Your task to perform on an android device: Add "energizer triple a" to the cart on newegg.com Image 0: 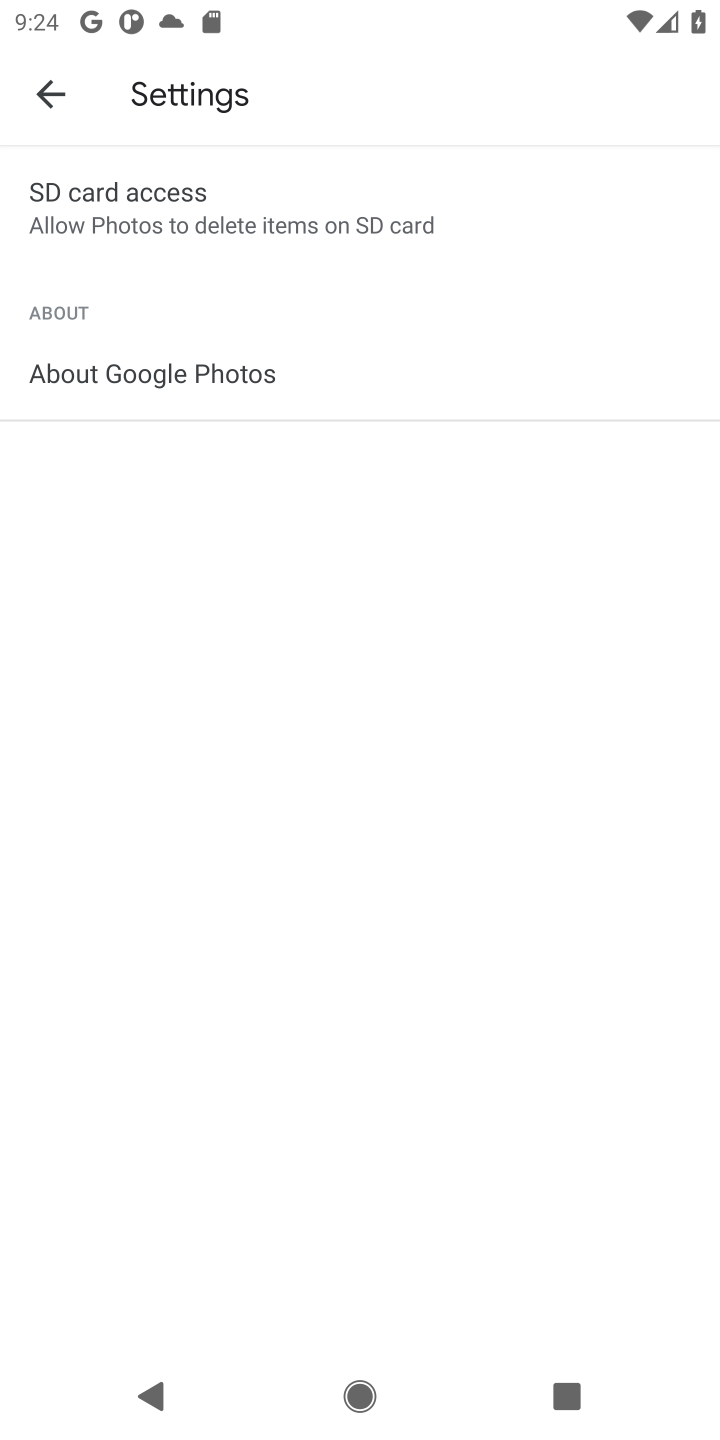
Step 0: press home button
Your task to perform on an android device: Add "energizer triple a" to the cart on newegg.com Image 1: 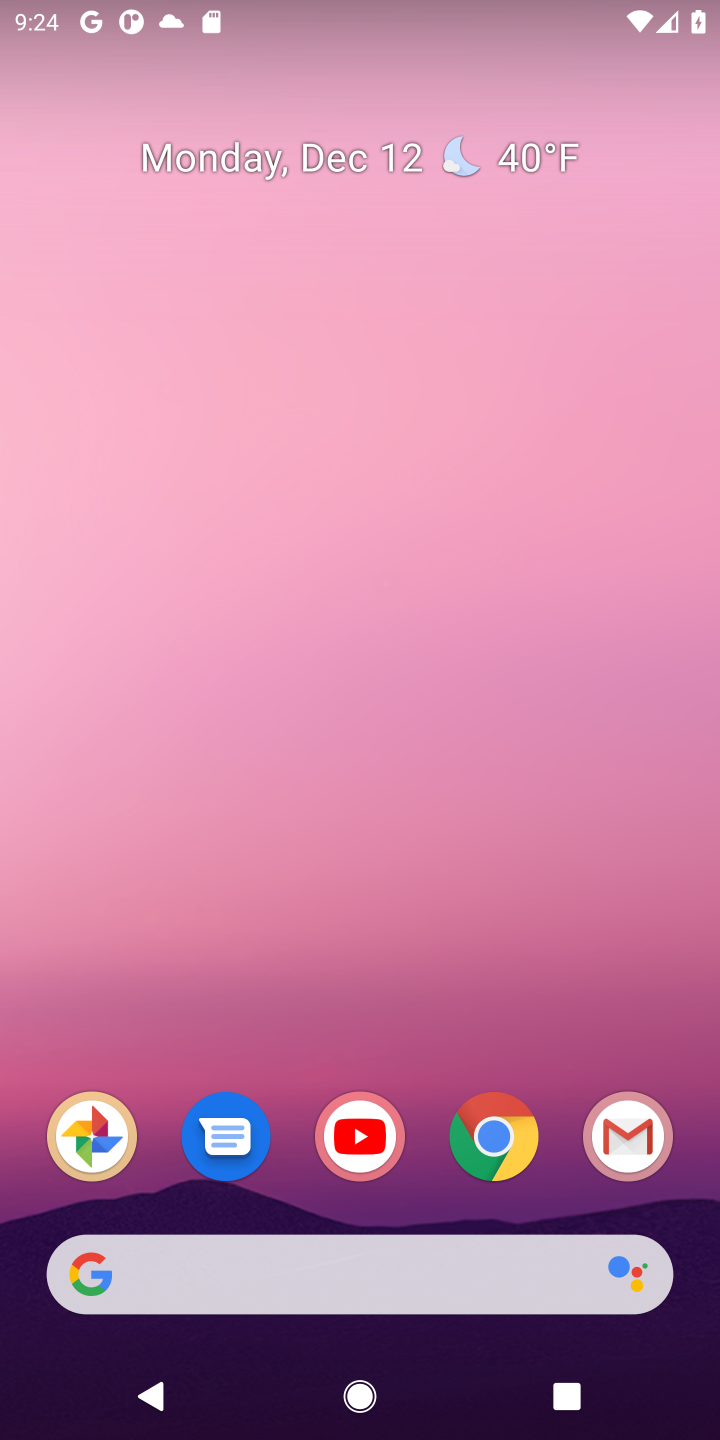
Step 1: click (495, 1150)
Your task to perform on an android device: Add "energizer triple a" to the cart on newegg.com Image 2: 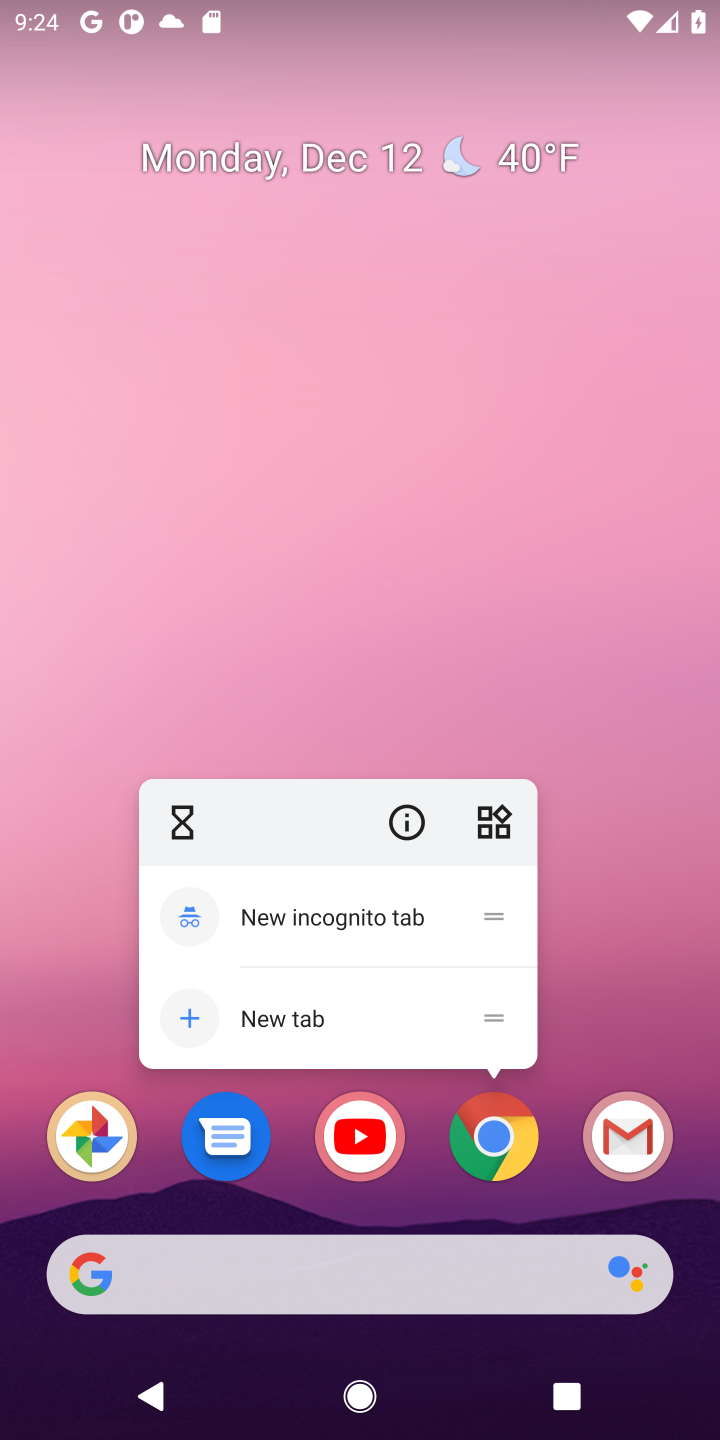
Step 2: click (495, 1150)
Your task to perform on an android device: Add "energizer triple a" to the cart on newegg.com Image 3: 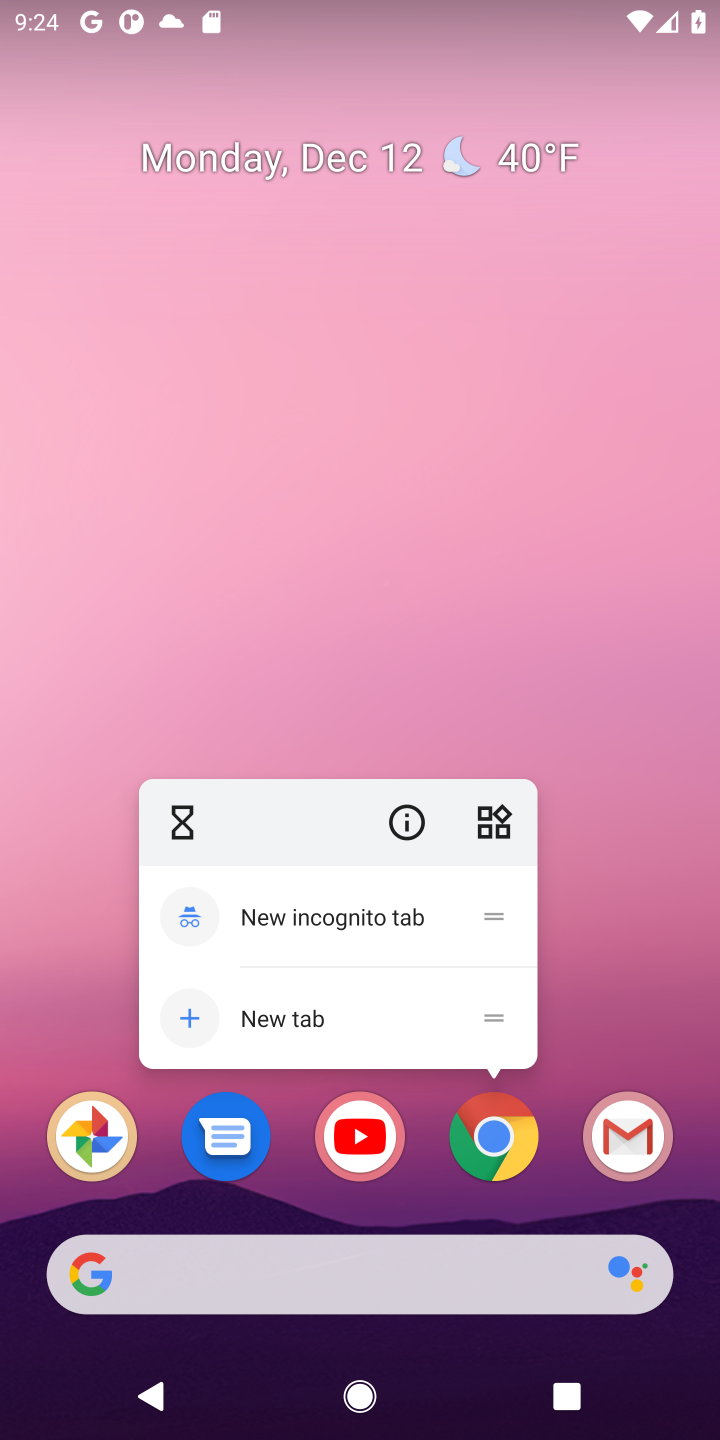
Step 3: click (497, 1148)
Your task to perform on an android device: Add "energizer triple a" to the cart on newegg.com Image 4: 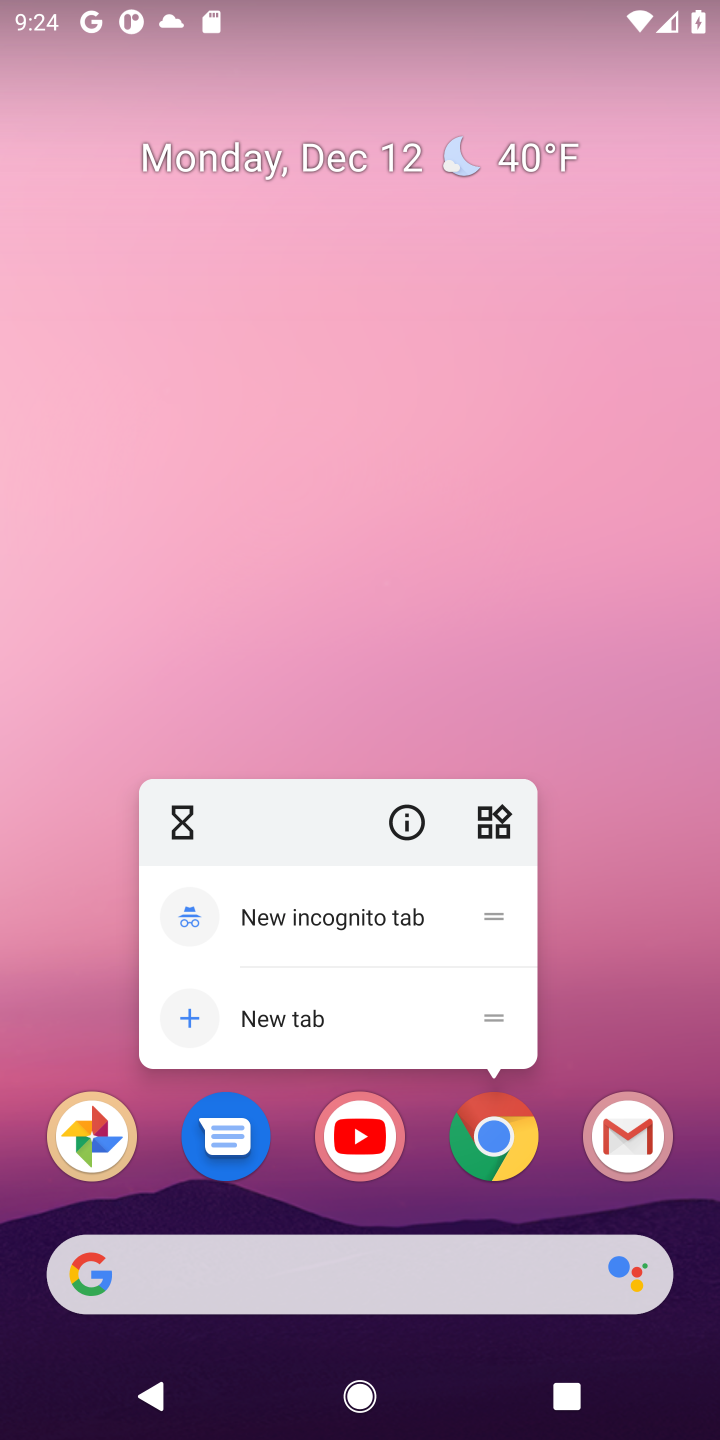
Step 4: click (502, 1143)
Your task to perform on an android device: Add "energizer triple a" to the cart on newegg.com Image 5: 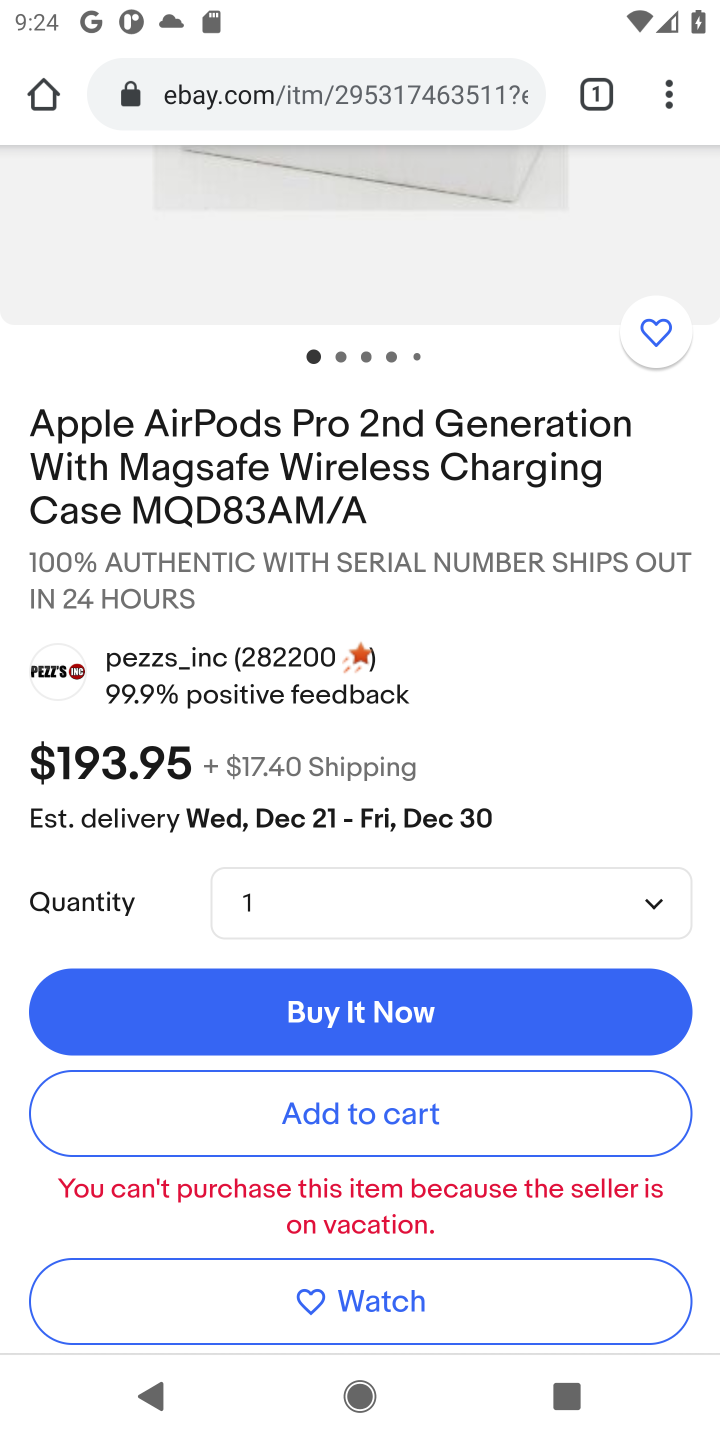
Step 5: click (255, 96)
Your task to perform on an android device: Add "energizer triple a" to the cart on newegg.com Image 6: 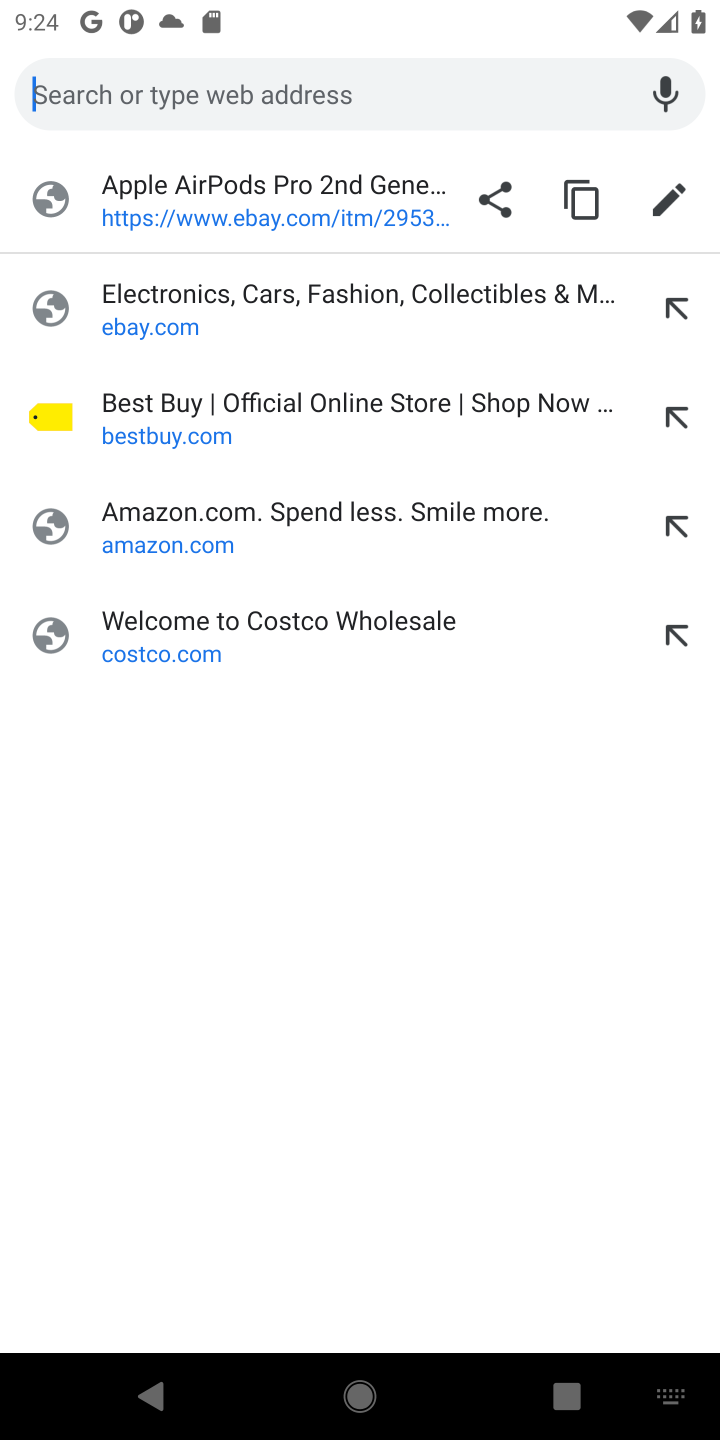
Step 6: type "newegg.com"
Your task to perform on an android device: Add "energizer triple a" to the cart on newegg.com Image 7: 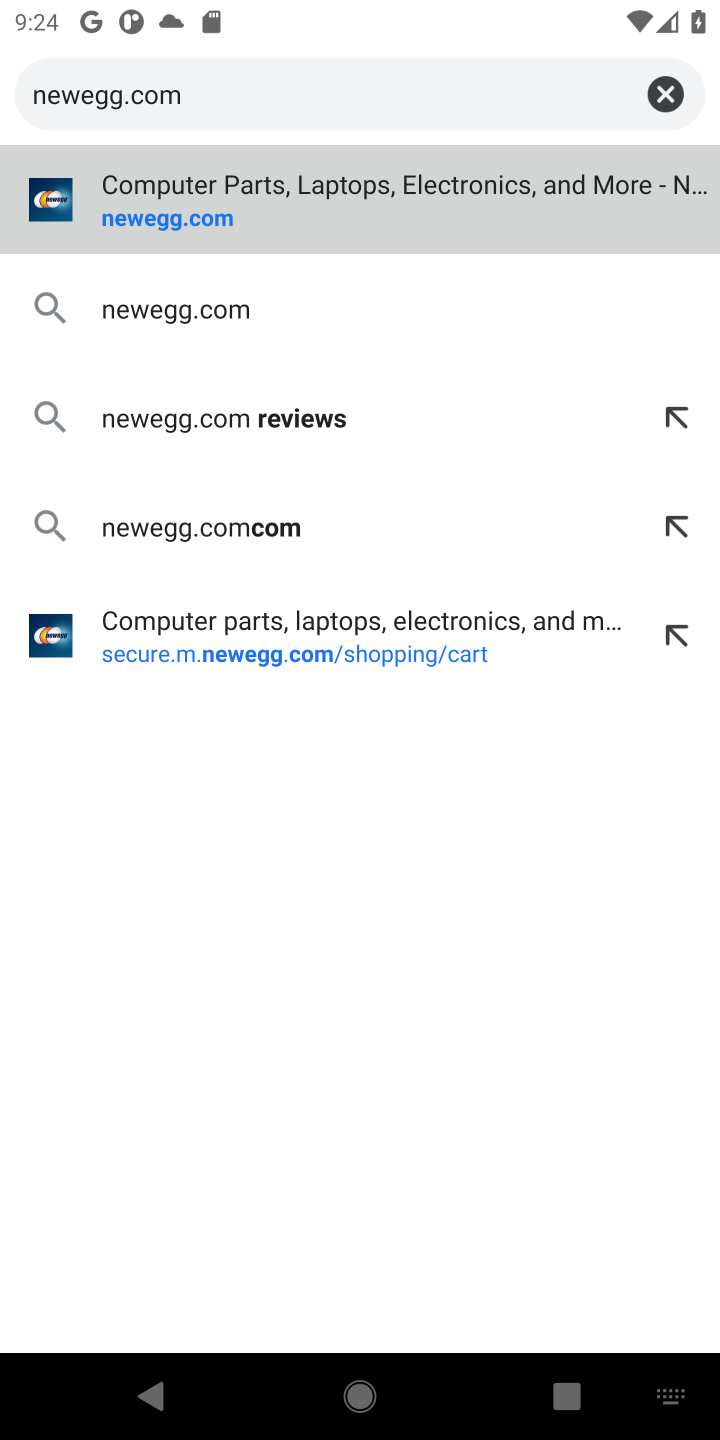
Step 7: click (146, 205)
Your task to perform on an android device: Add "energizer triple a" to the cart on newegg.com Image 8: 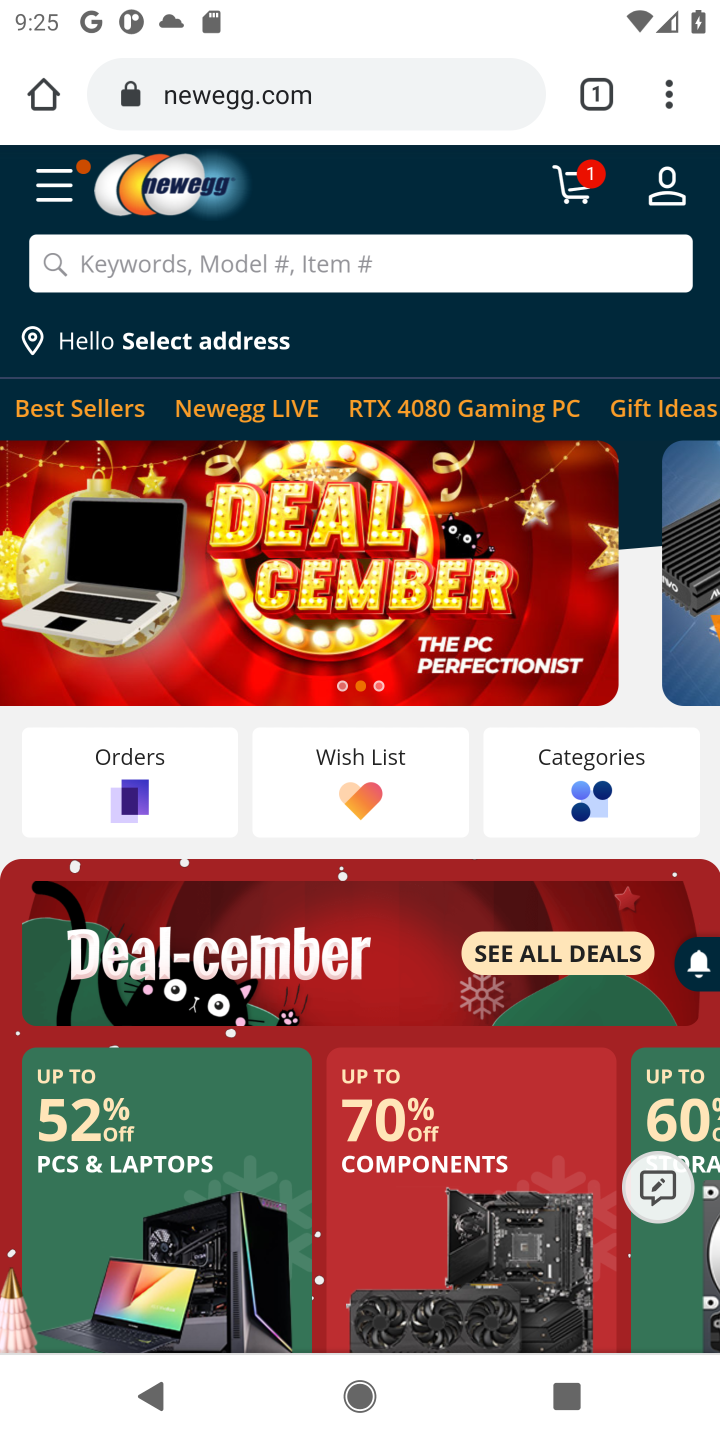
Step 8: click (181, 270)
Your task to perform on an android device: Add "energizer triple a" to the cart on newegg.com Image 9: 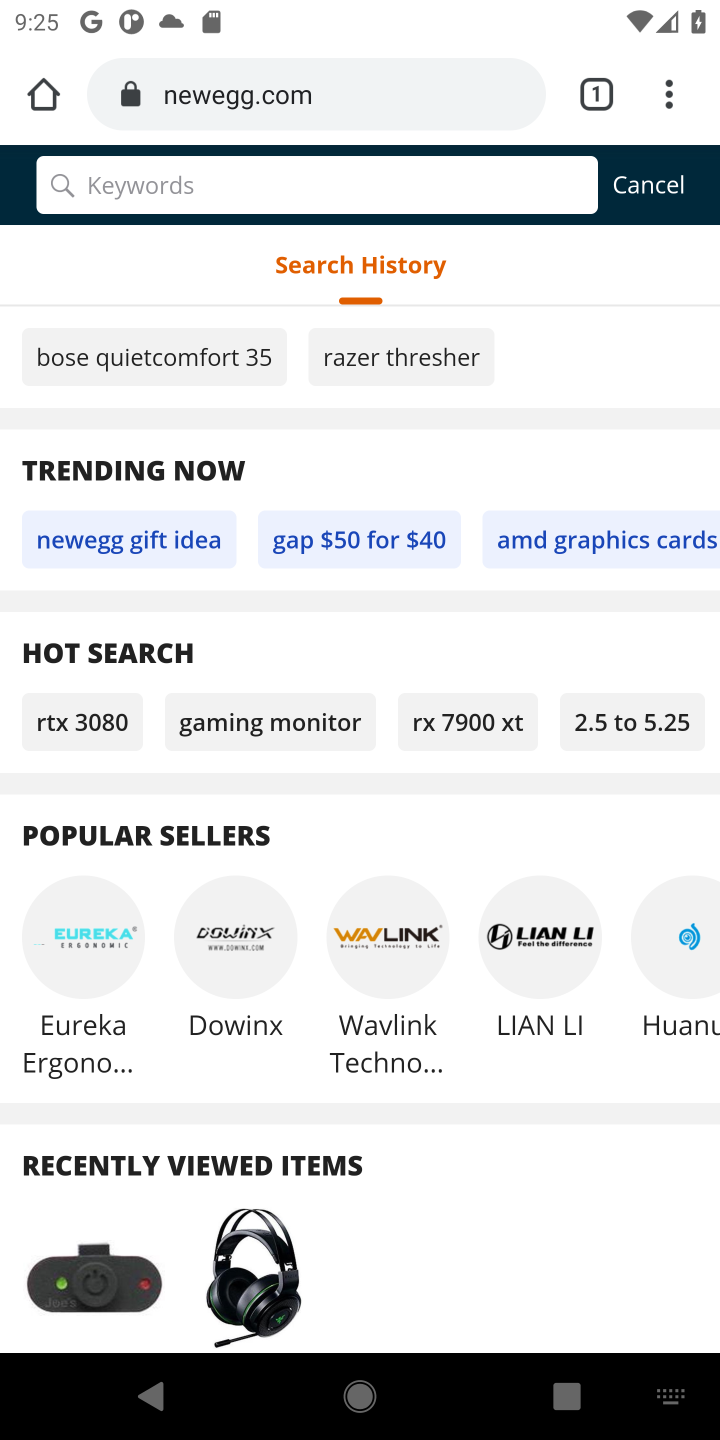
Step 9: type "energizer triple a"
Your task to perform on an android device: Add "energizer triple a" to the cart on newegg.com Image 10: 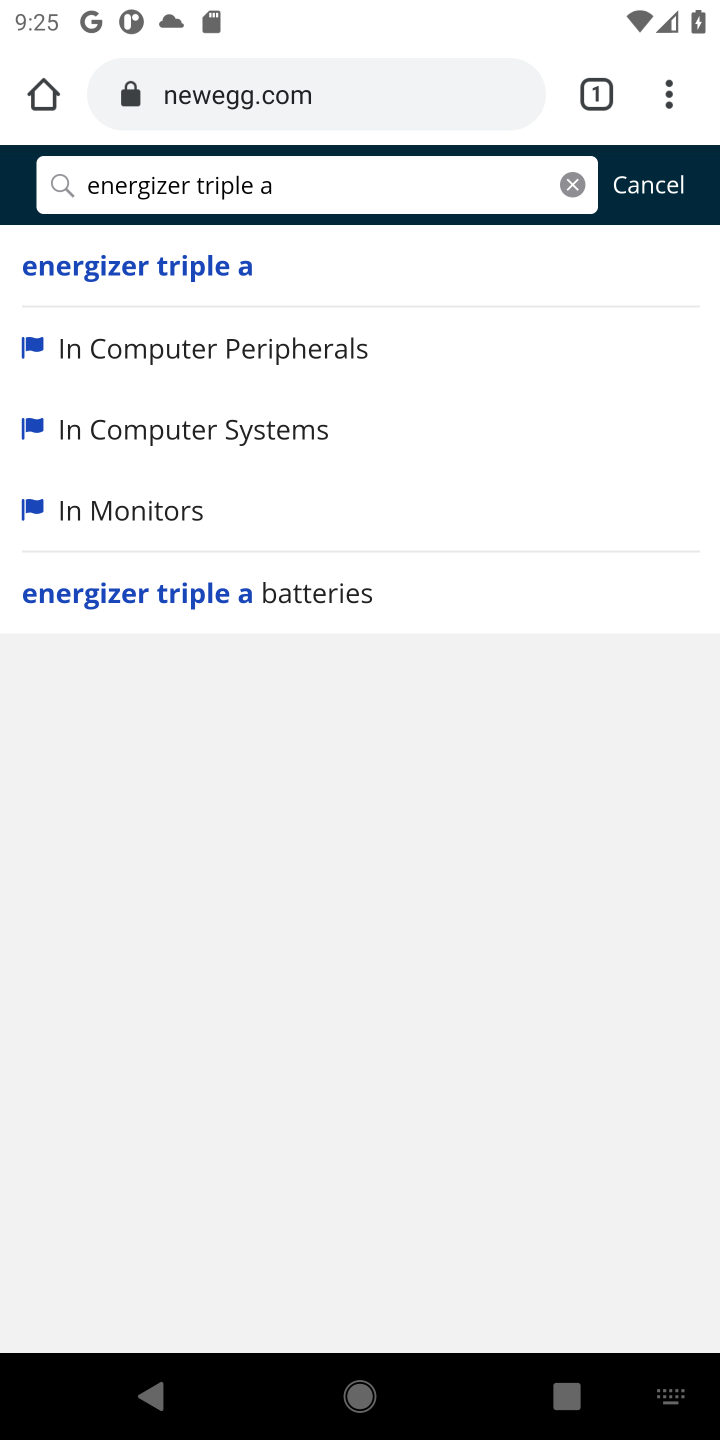
Step 10: click (124, 274)
Your task to perform on an android device: Add "energizer triple a" to the cart on newegg.com Image 11: 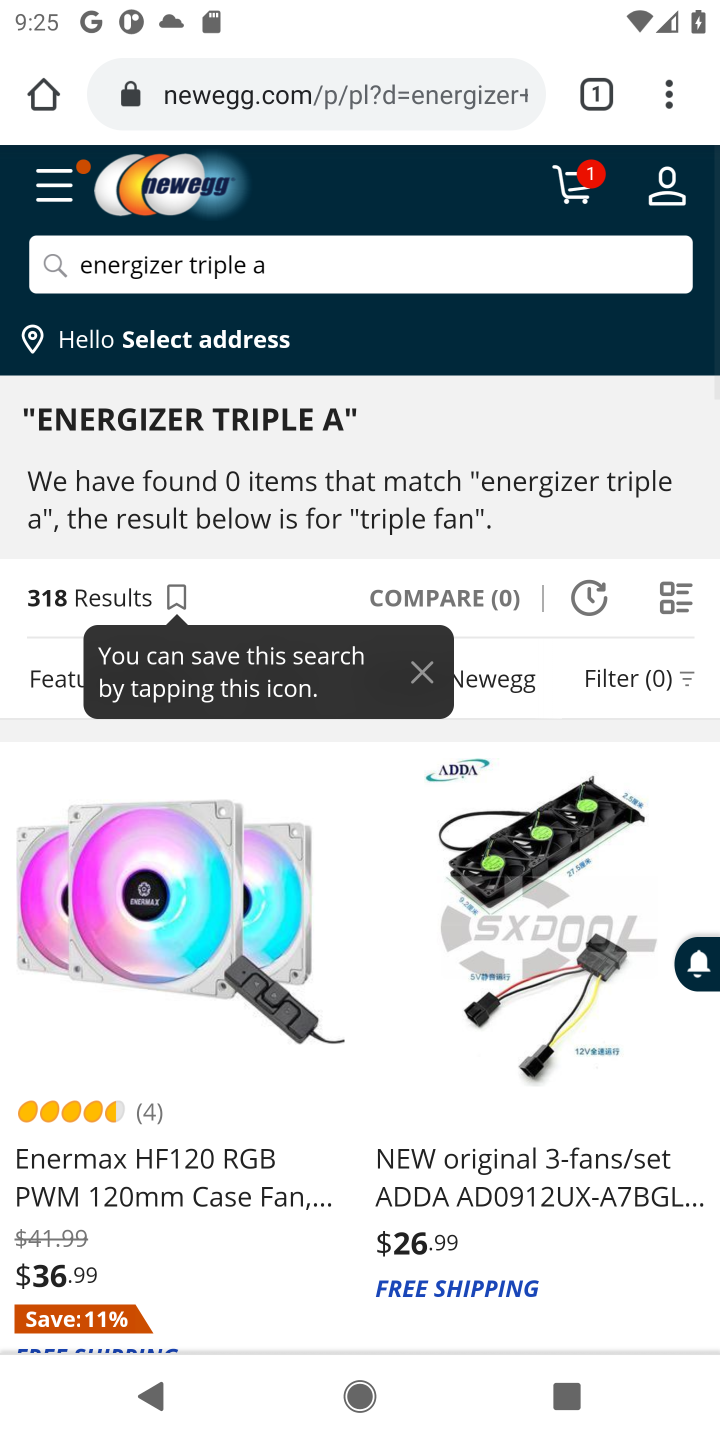
Step 11: task complete